Your task to perform on an android device: turn off smart reply in the gmail app Image 0: 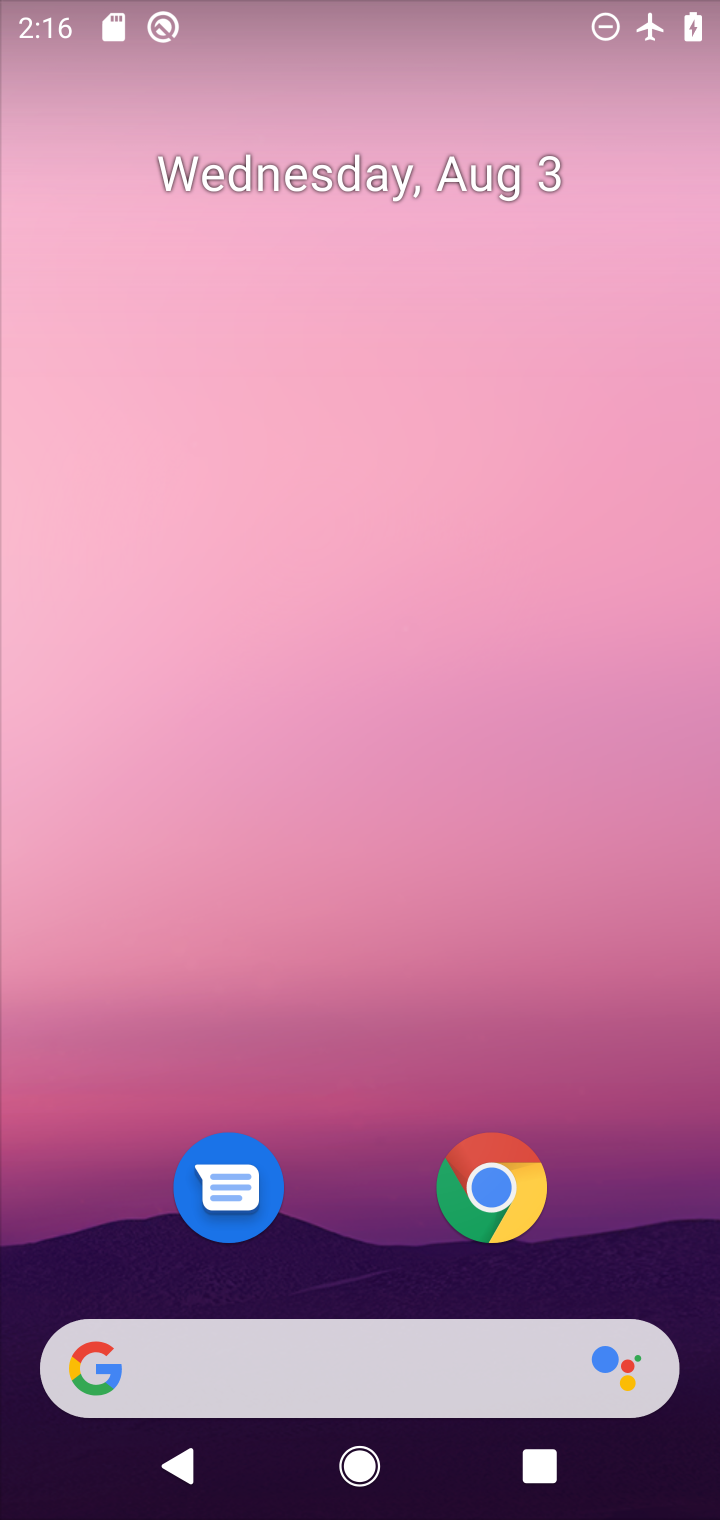
Step 0: drag from (352, 795) to (376, 7)
Your task to perform on an android device: turn off smart reply in the gmail app Image 1: 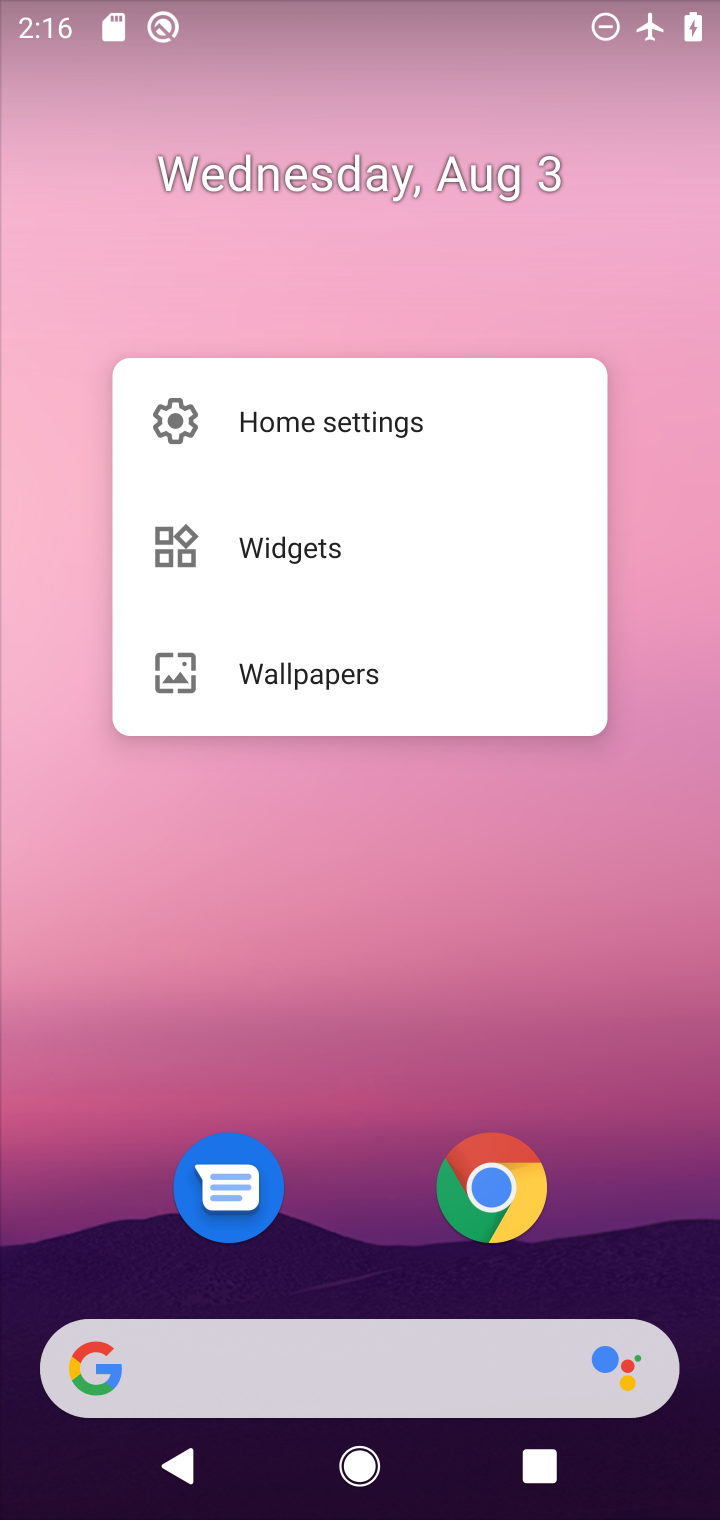
Step 1: click (711, 891)
Your task to perform on an android device: turn off smart reply in the gmail app Image 2: 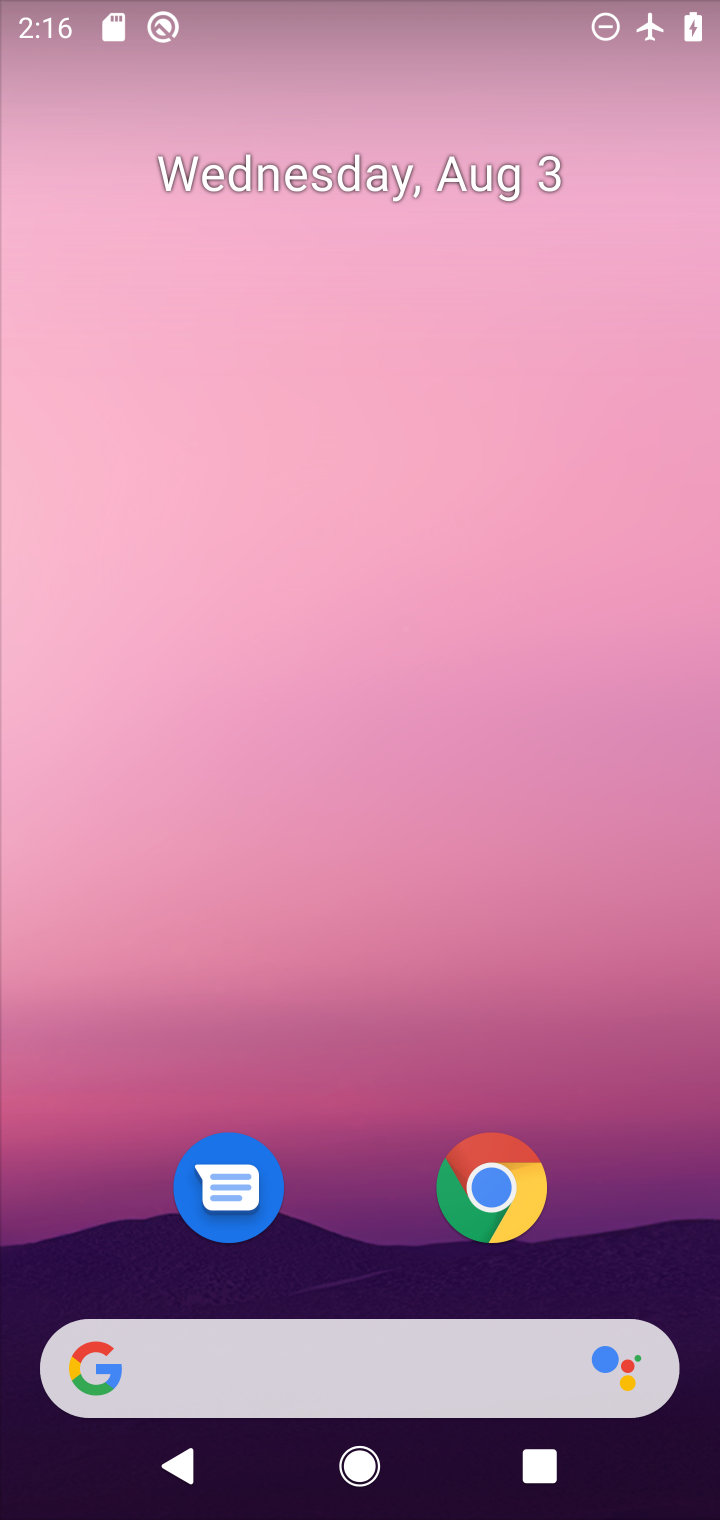
Step 2: drag from (476, 921) to (499, 20)
Your task to perform on an android device: turn off smart reply in the gmail app Image 3: 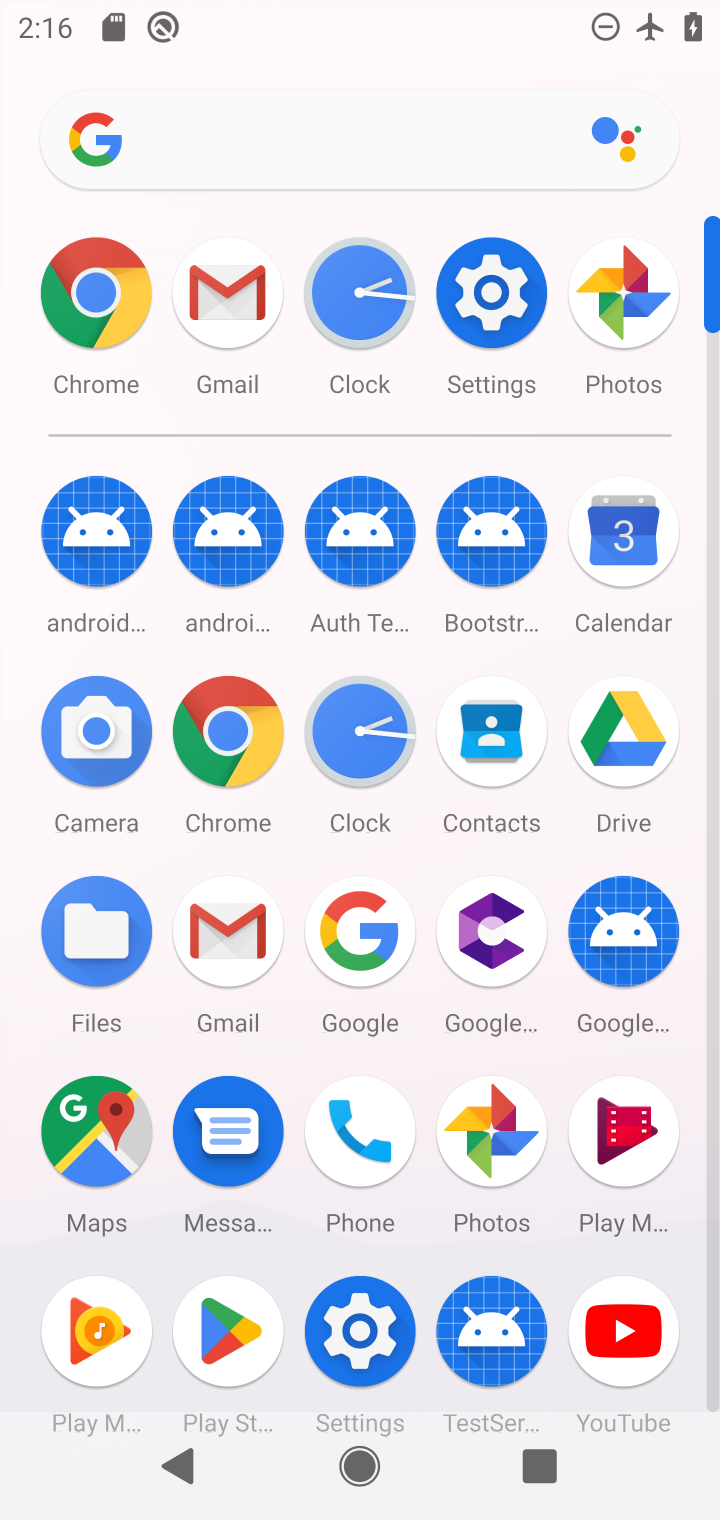
Step 3: click (238, 277)
Your task to perform on an android device: turn off smart reply in the gmail app Image 4: 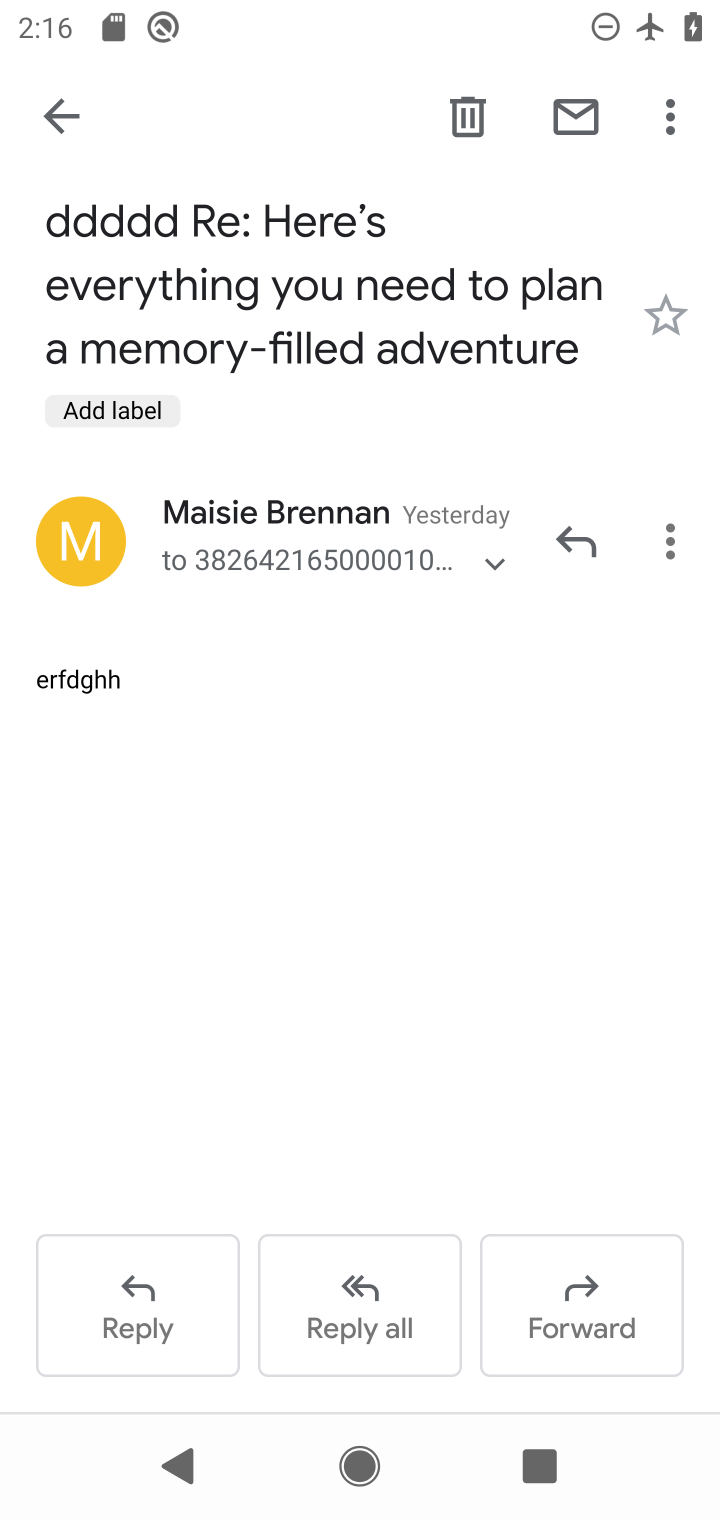
Step 4: click (52, 118)
Your task to perform on an android device: turn off smart reply in the gmail app Image 5: 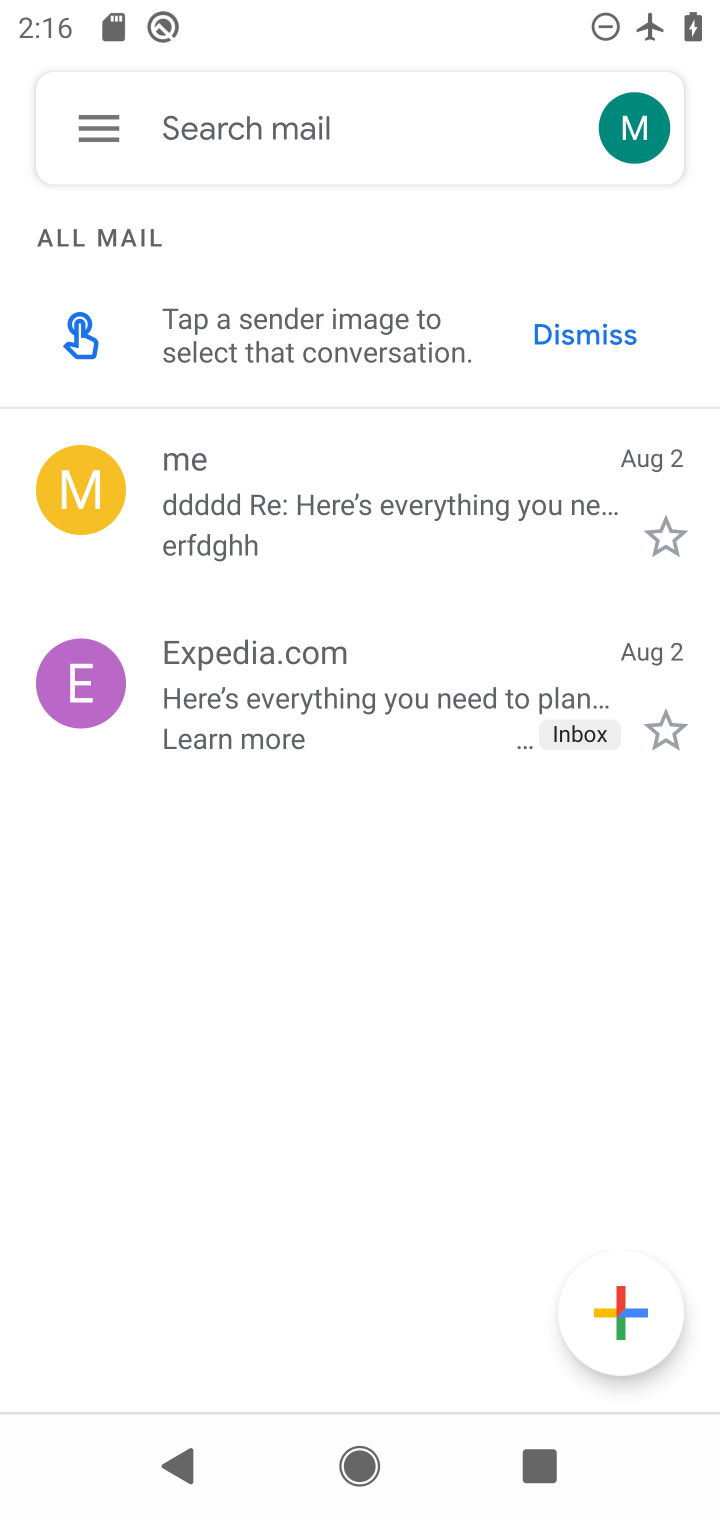
Step 5: click (86, 122)
Your task to perform on an android device: turn off smart reply in the gmail app Image 6: 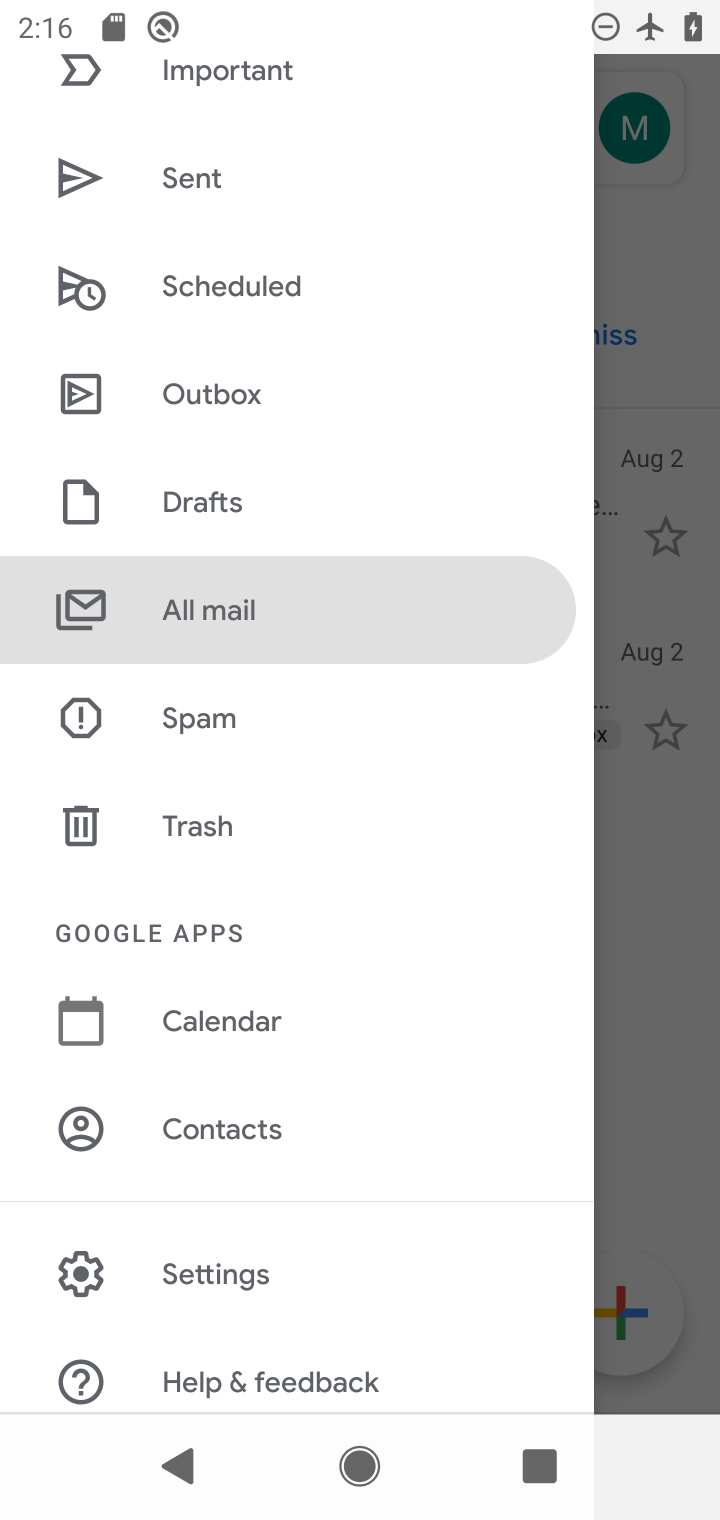
Step 6: click (219, 1268)
Your task to perform on an android device: turn off smart reply in the gmail app Image 7: 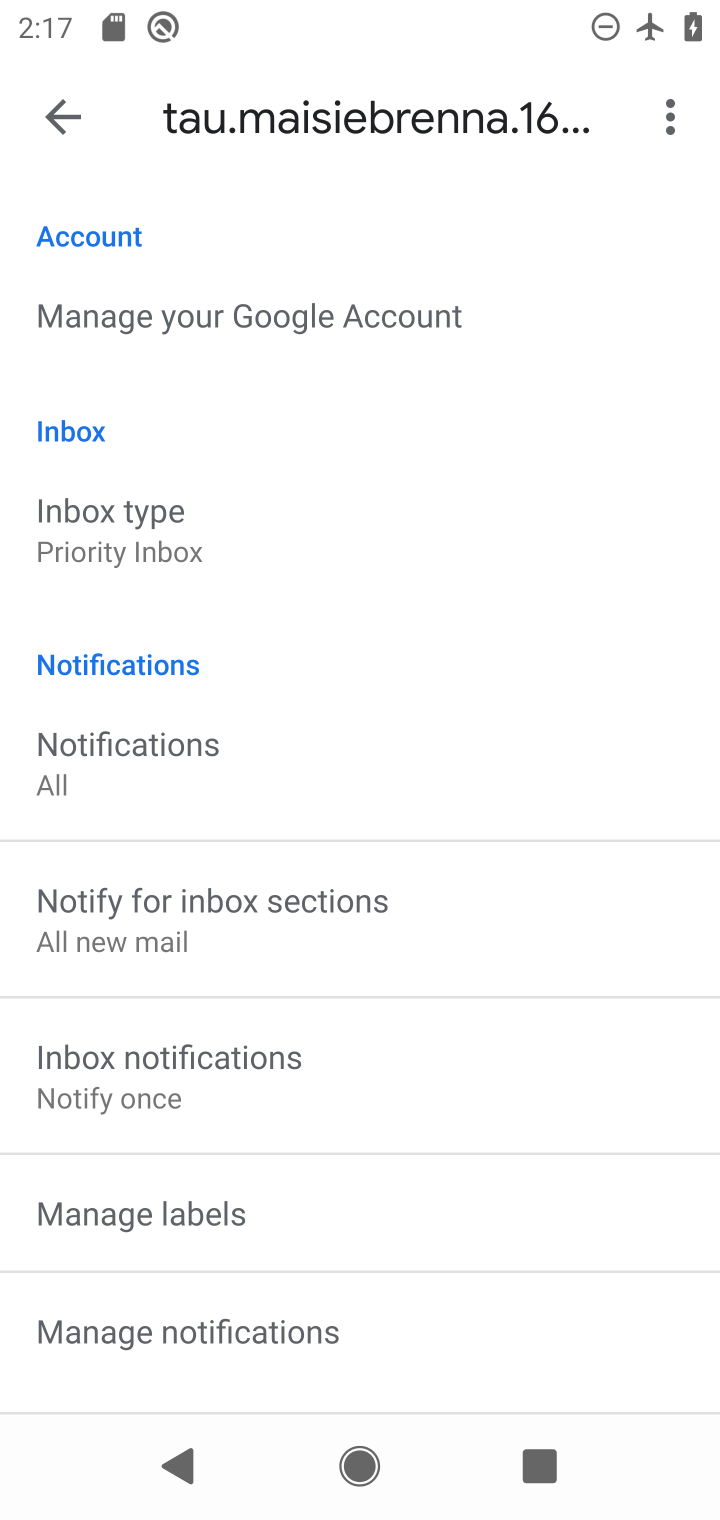
Step 7: drag from (442, 878) to (482, 265)
Your task to perform on an android device: turn off smart reply in the gmail app Image 8: 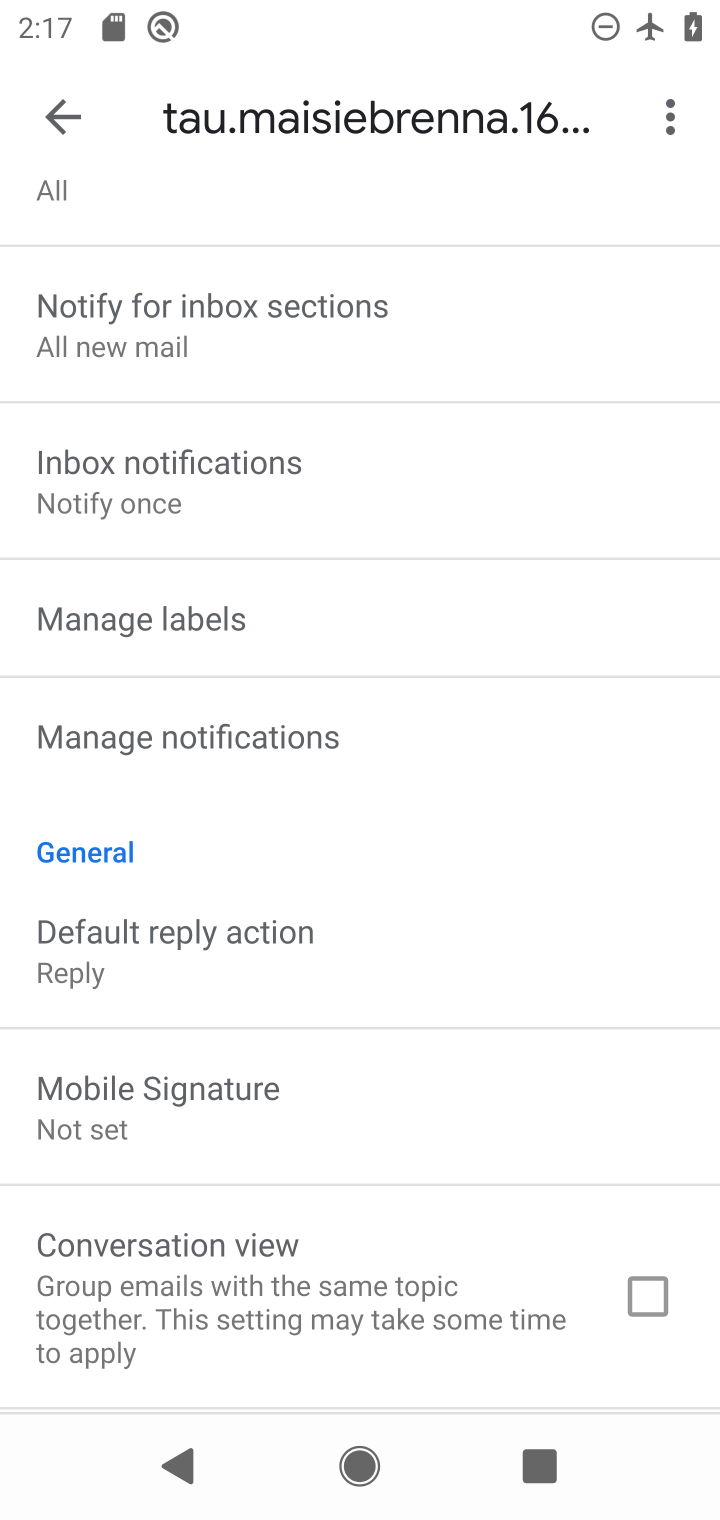
Step 8: drag from (386, 1114) to (460, 187)
Your task to perform on an android device: turn off smart reply in the gmail app Image 9: 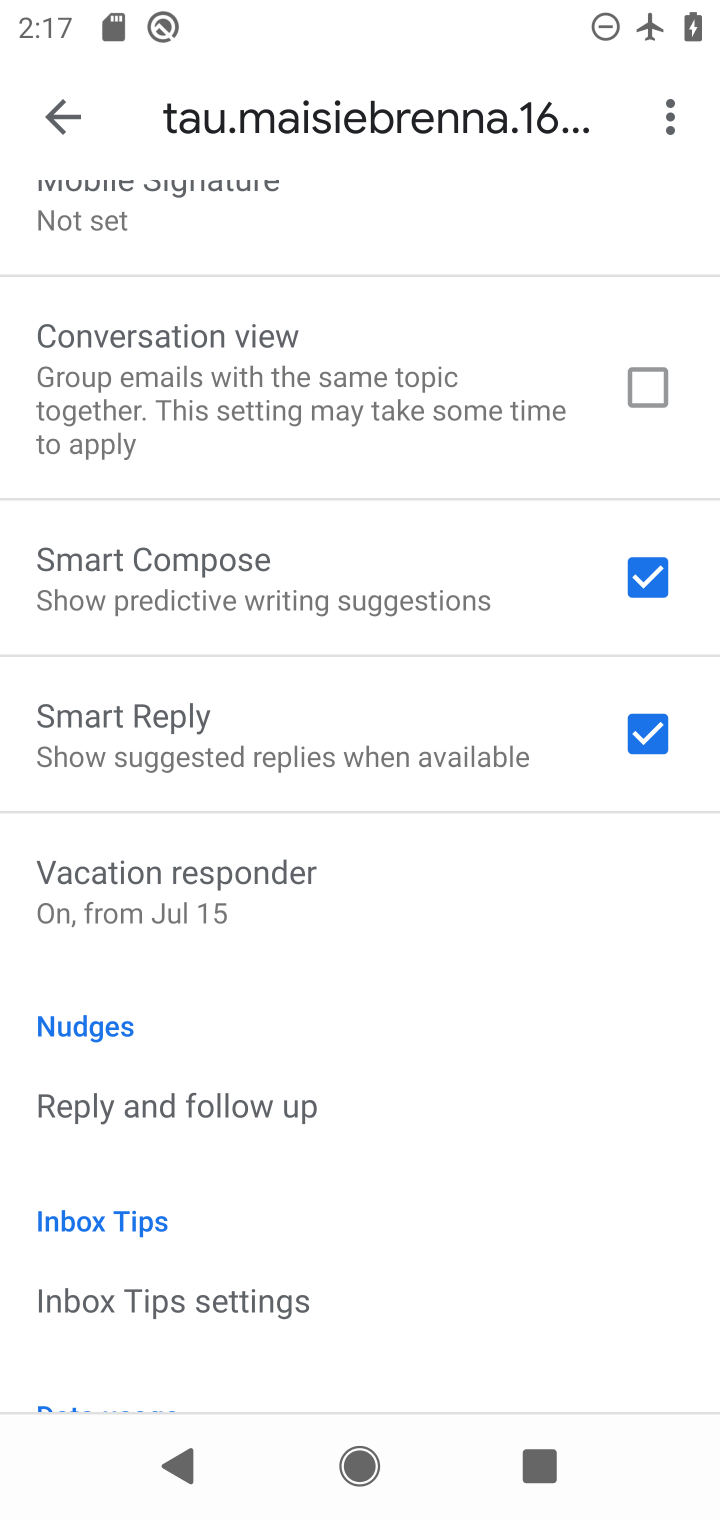
Step 9: click (638, 733)
Your task to perform on an android device: turn off smart reply in the gmail app Image 10: 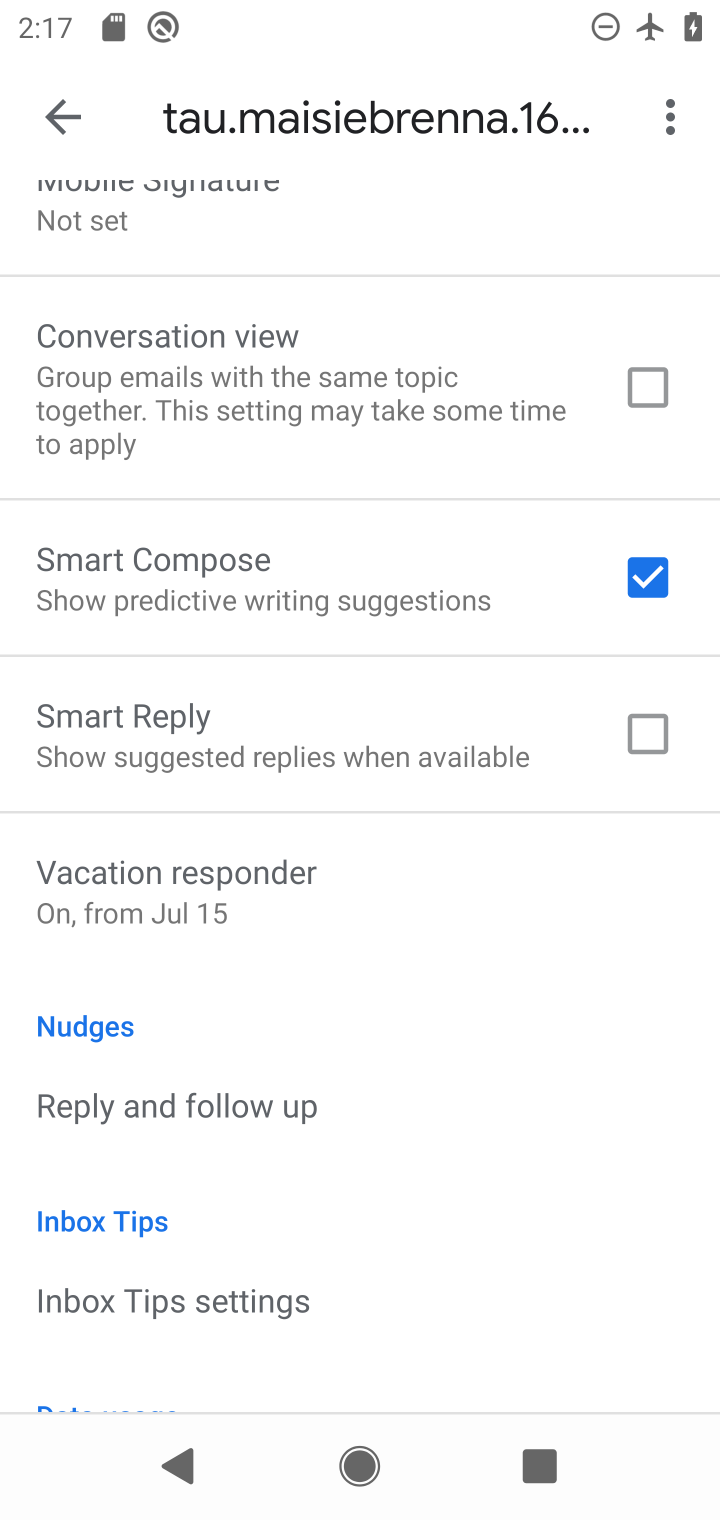
Step 10: task complete